Your task to perform on an android device: Open location settings Image 0: 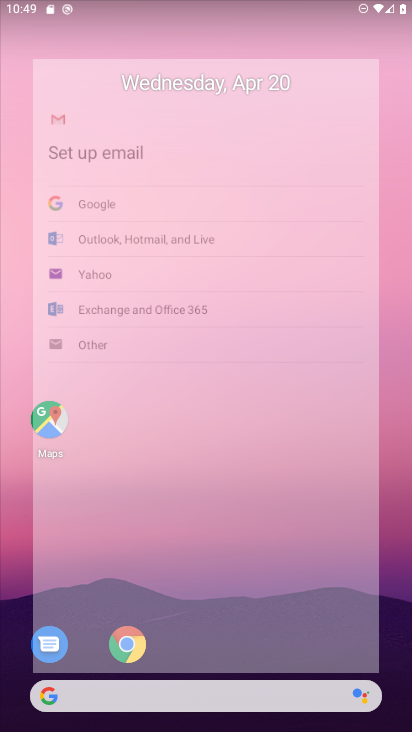
Step 0: drag from (329, 623) to (253, 138)
Your task to perform on an android device: Open location settings Image 1: 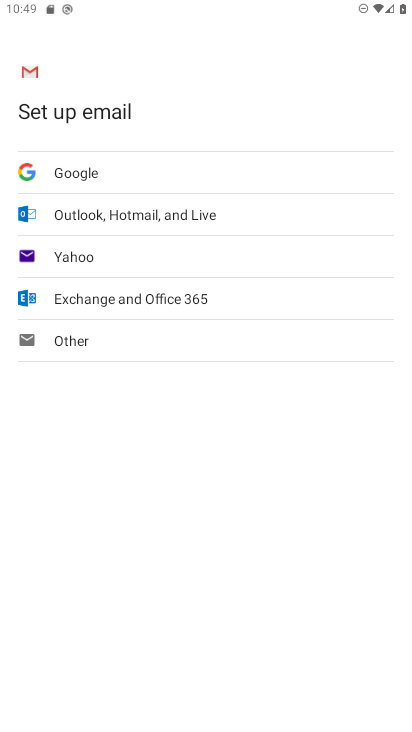
Step 1: press back button
Your task to perform on an android device: Open location settings Image 2: 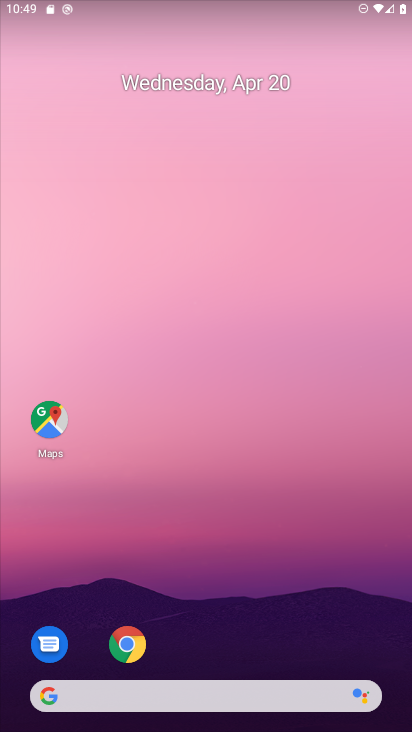
Step 2: drag from (284, 591) to (203, 93)
Your task to perform on an android device: Open location settings Image 3: 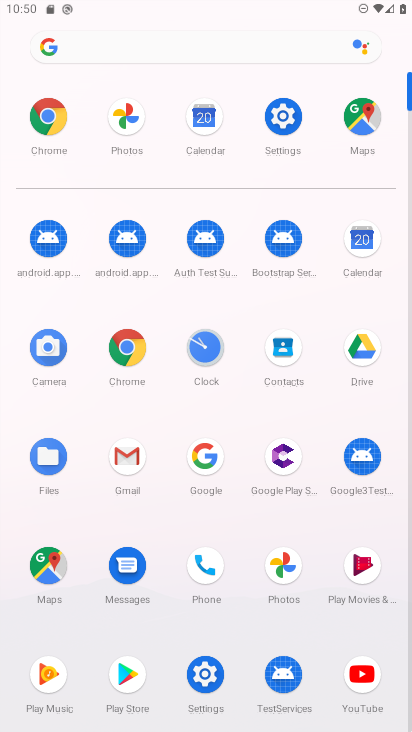
Step 3: click (205, 668)
Your task to perform on an android device: Open location settings Image 4: 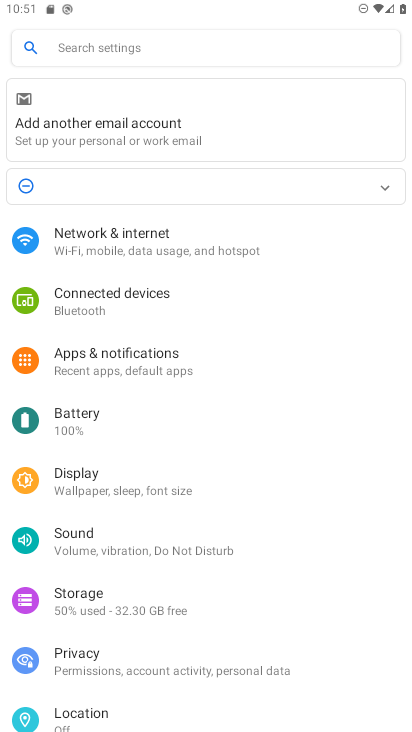
Step 4: click (95, 715)
Your task to perform on an android device: Open location settings Image 5: 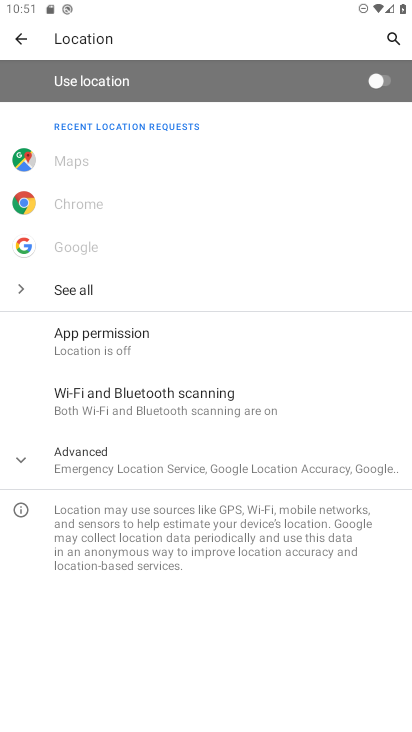
Step 5: task complete